Your task to perform on an android device: check google app version Image 0: 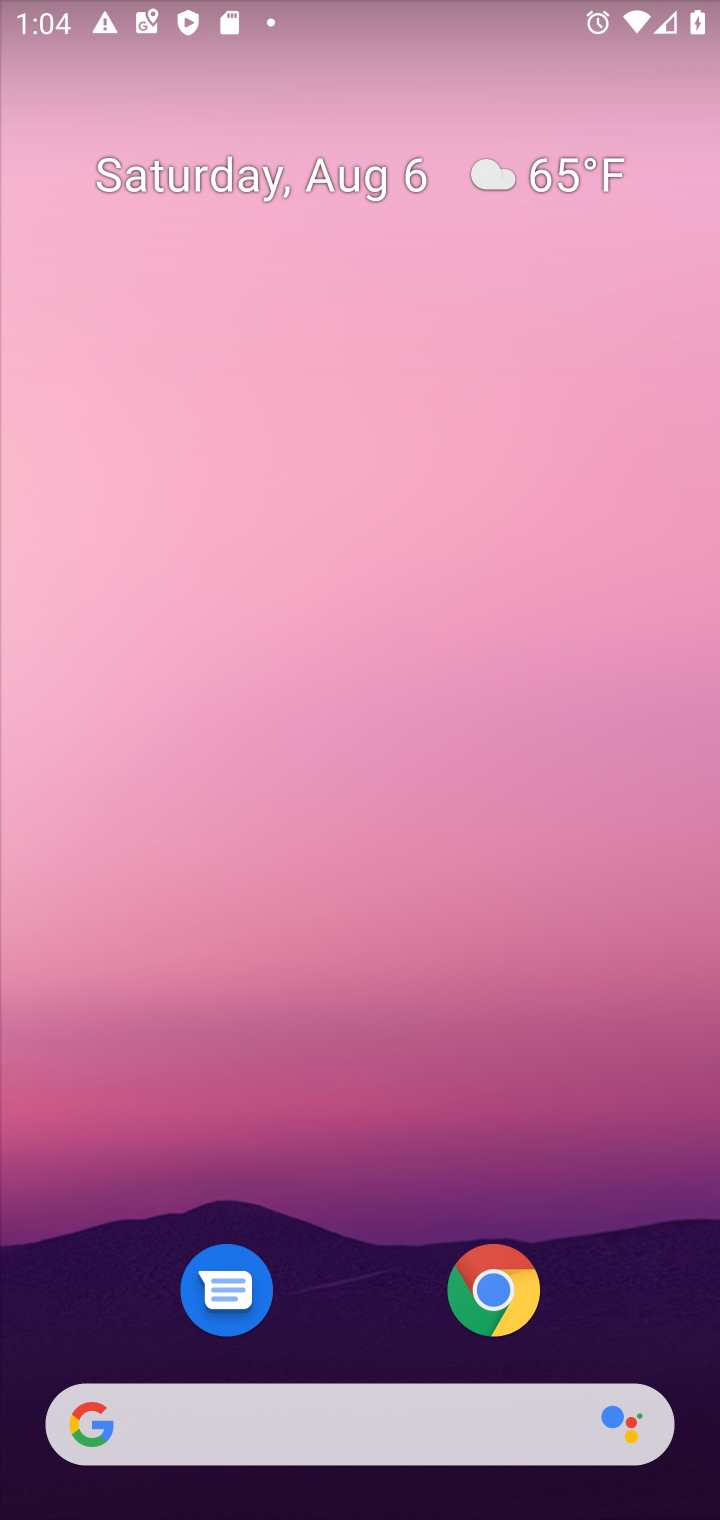
Step 0: drag from (362, 1335) to (342, 205)
Your task to perform on an android device: check google app version Image 1: 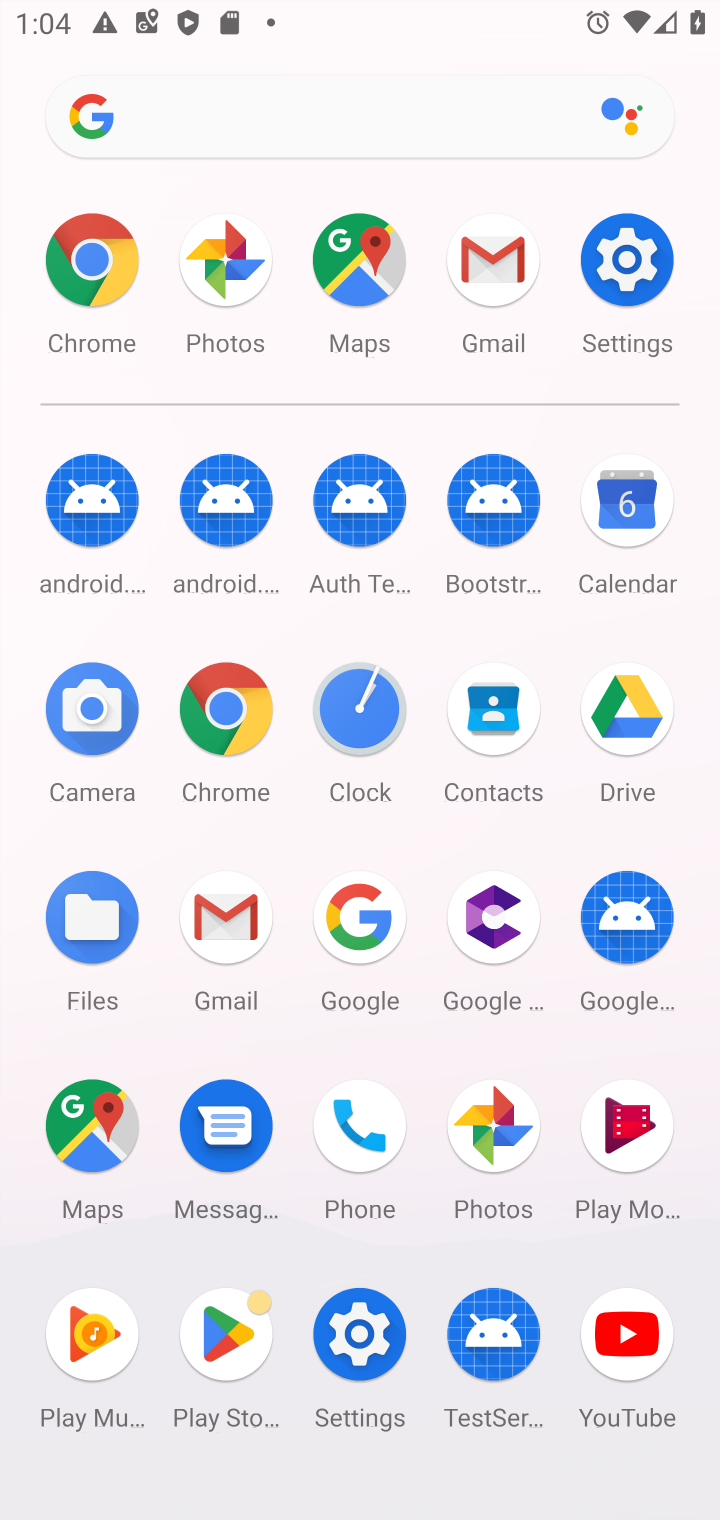
Step 1: click (353, 896)
Your task to perform on an android device: check google app version Image 2: 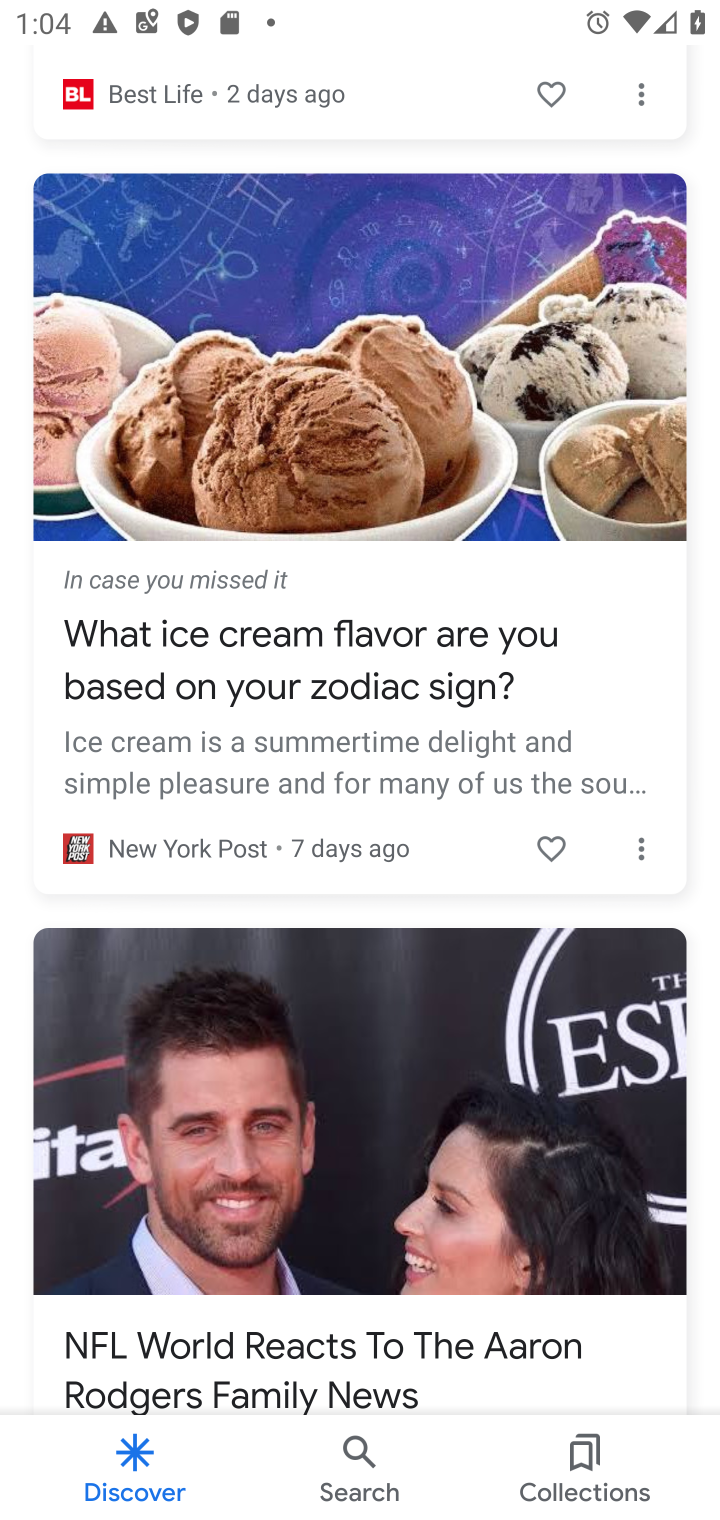
Step 2: click (633, 92)
Your task to perform on an android device: check google app version Image 3: 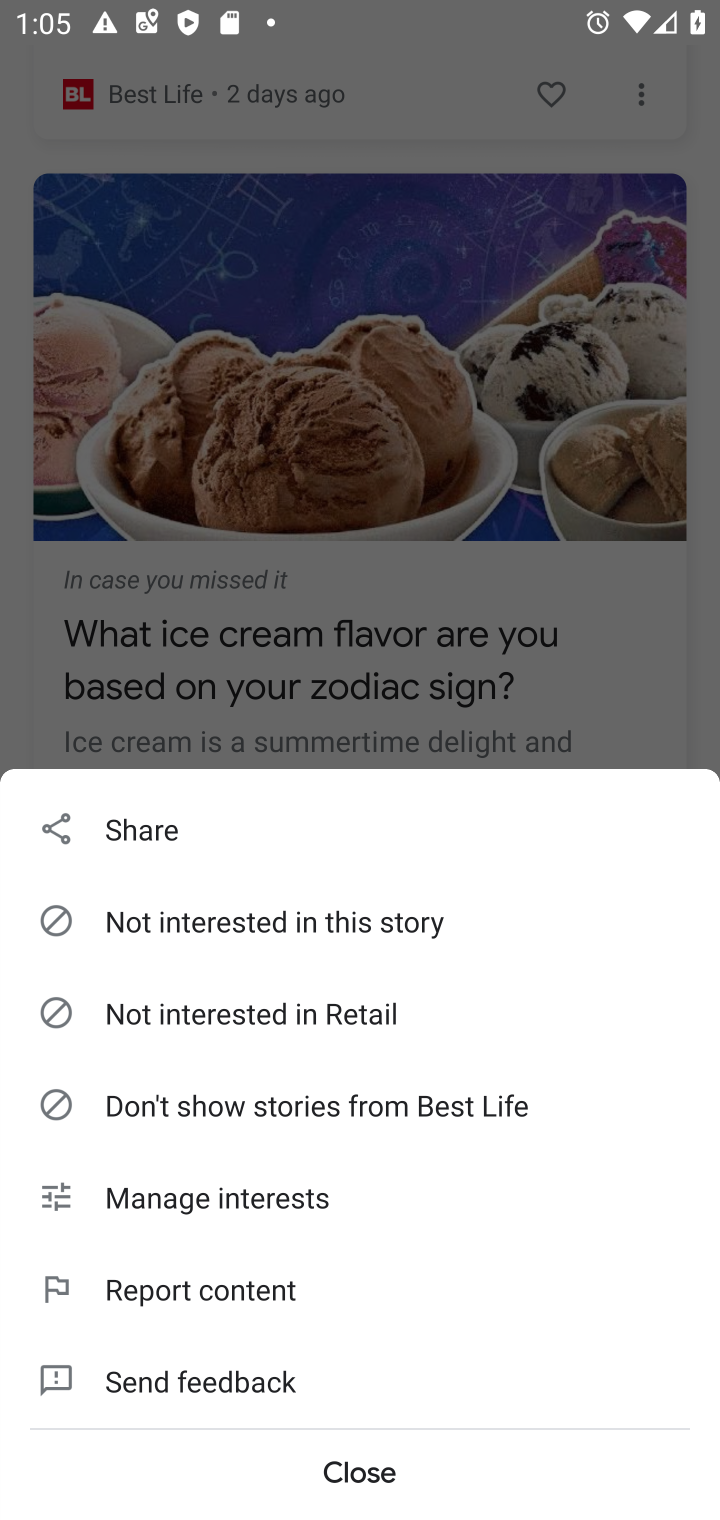
Step 3: click (439, 516)
Your task to perform on an android device: check google app version Image 4: 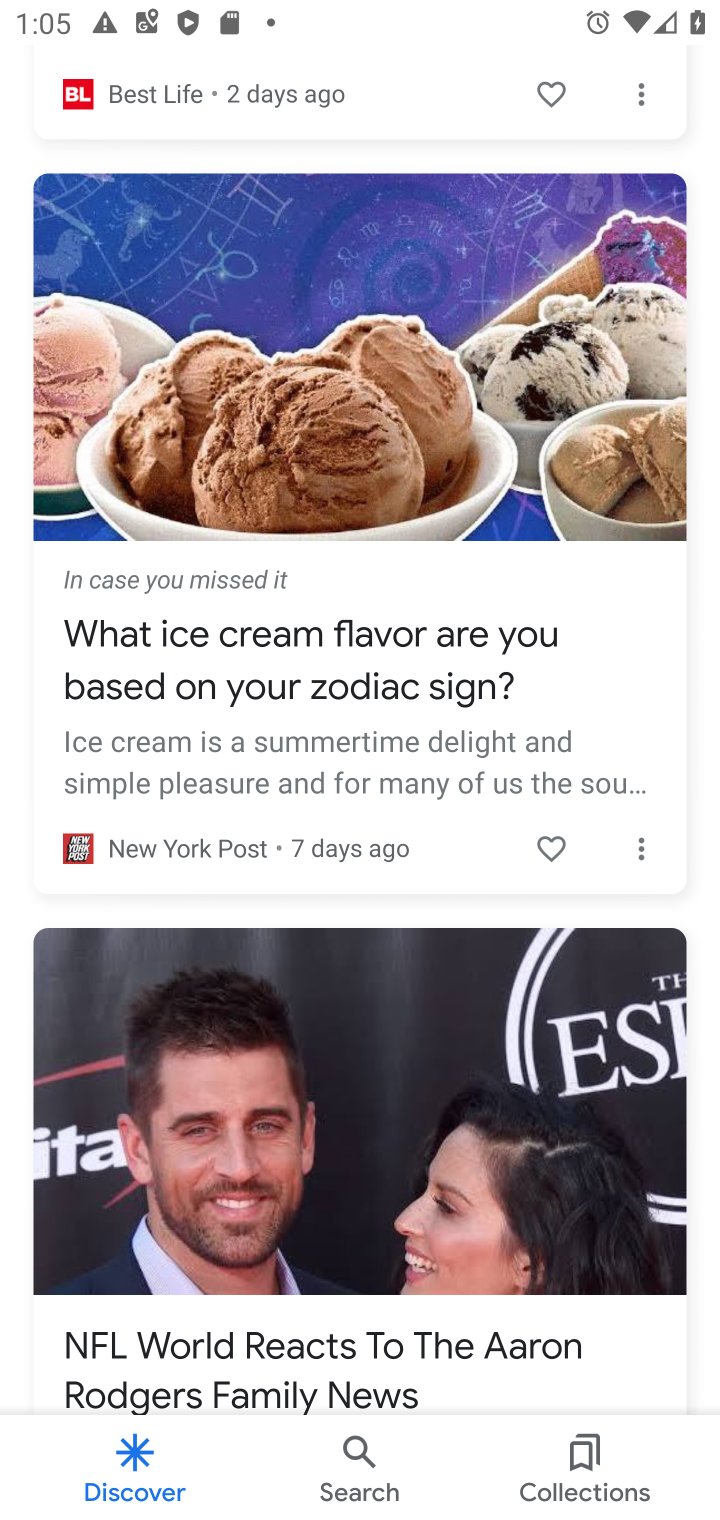
Step 4: drag from (396, 330) to (457, 1515)
Your task to perform on an android device: check google app version Image 5: 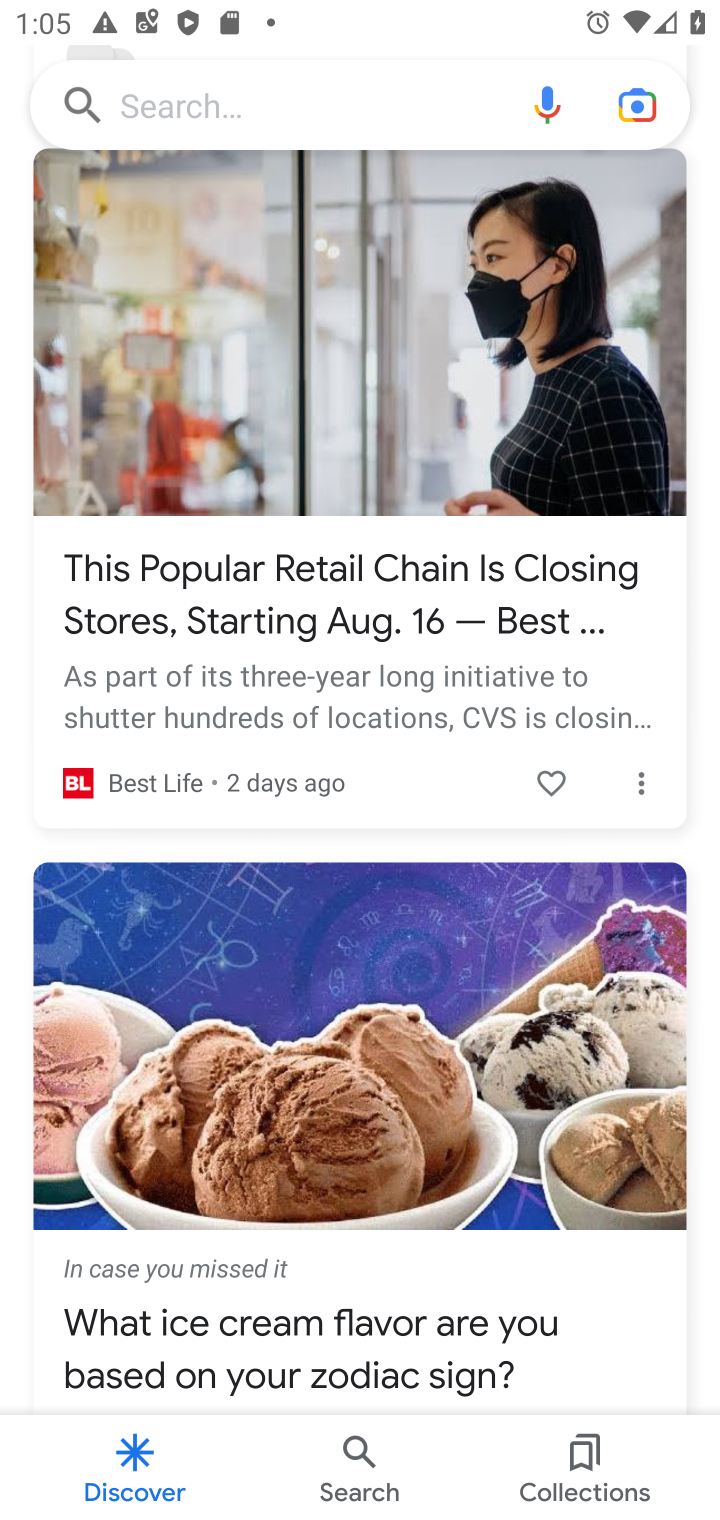
Step 5: drag from (414, 696) to (511, 1517)
Your task to perform on an android device: check google app version Image 6: 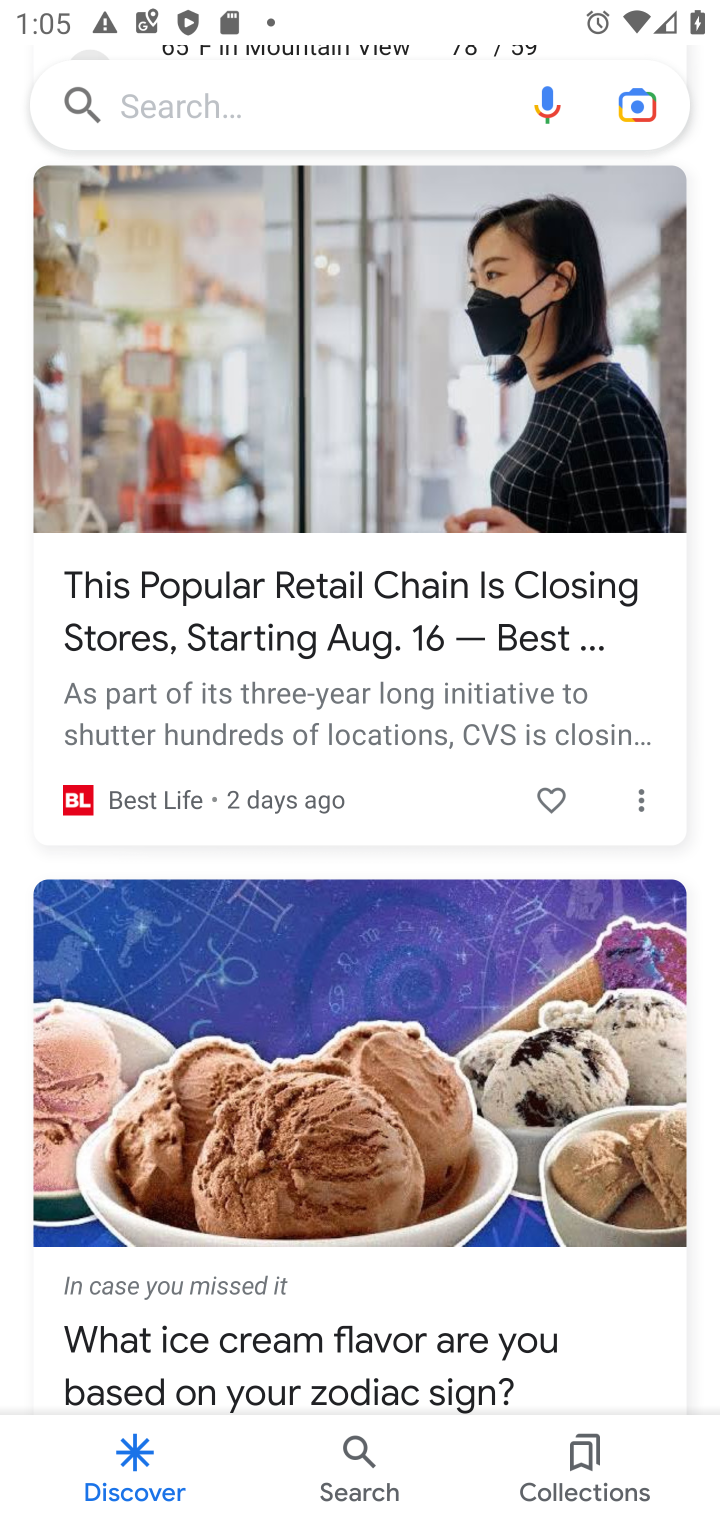
Step 6: drag from (418, 578) to (451, 1367)
Your task to perform on an android device: check google app version Image 7: 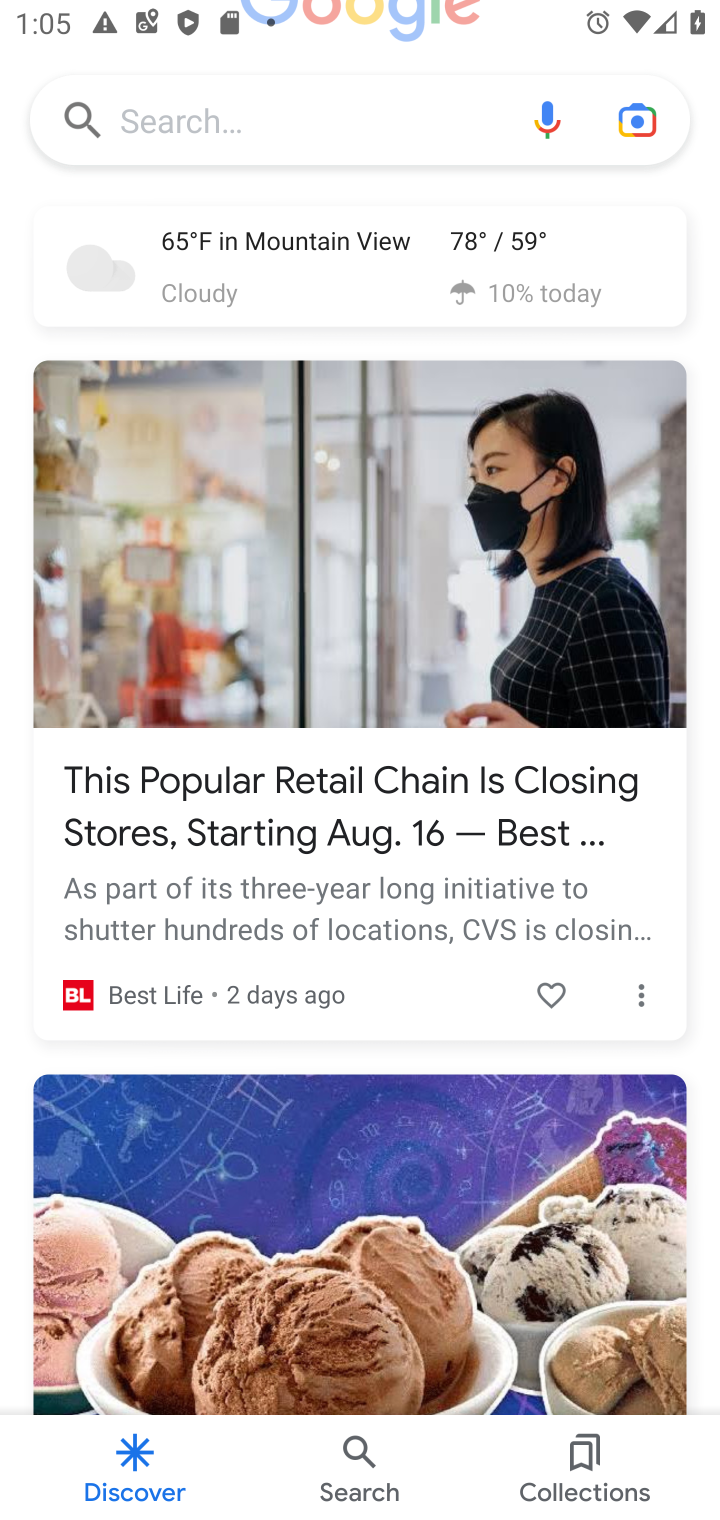
Step 7: drag from (363, 391) to (455, 1491)
Your task to perform on an android device: check google app version Image 8: 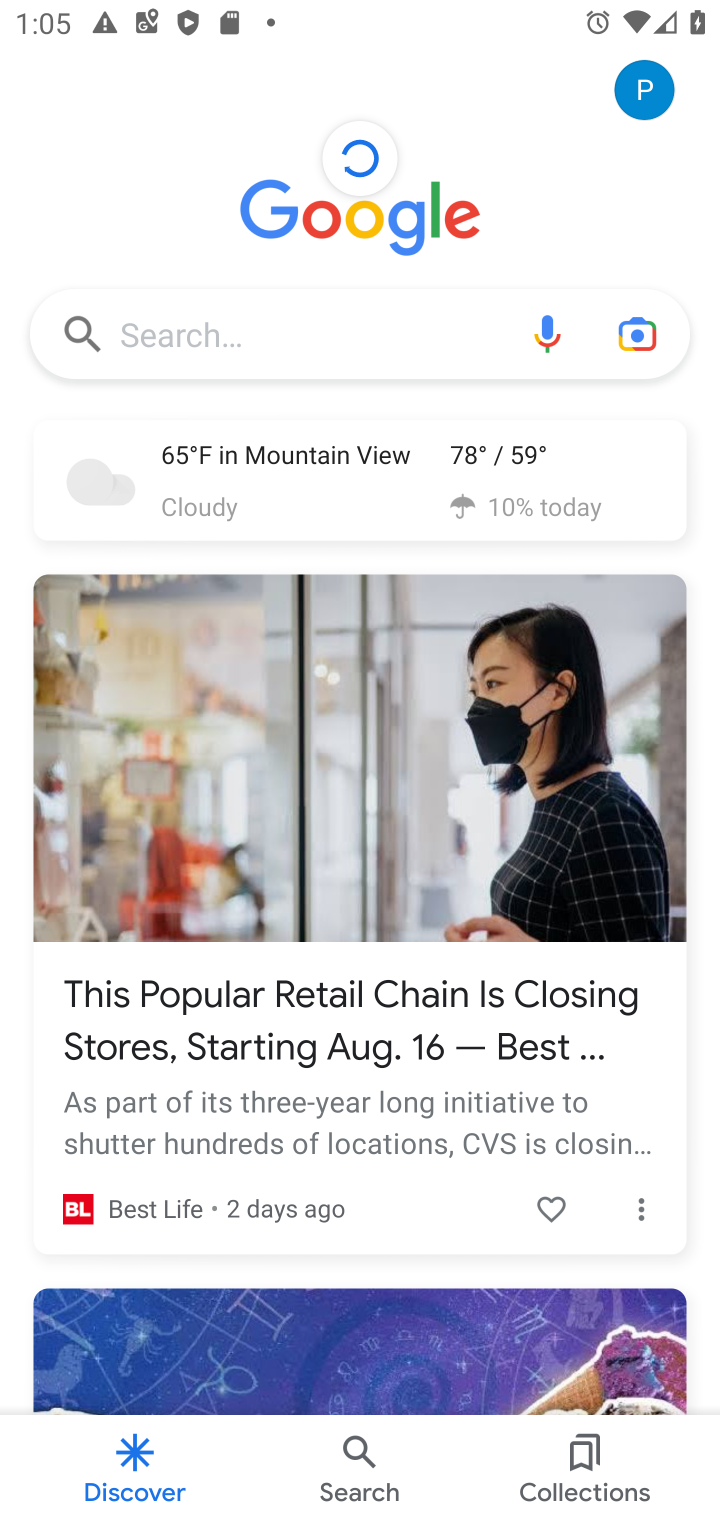
Step 8: click (647, 85)
Your task to perform on an android device: check google app version Image 9: 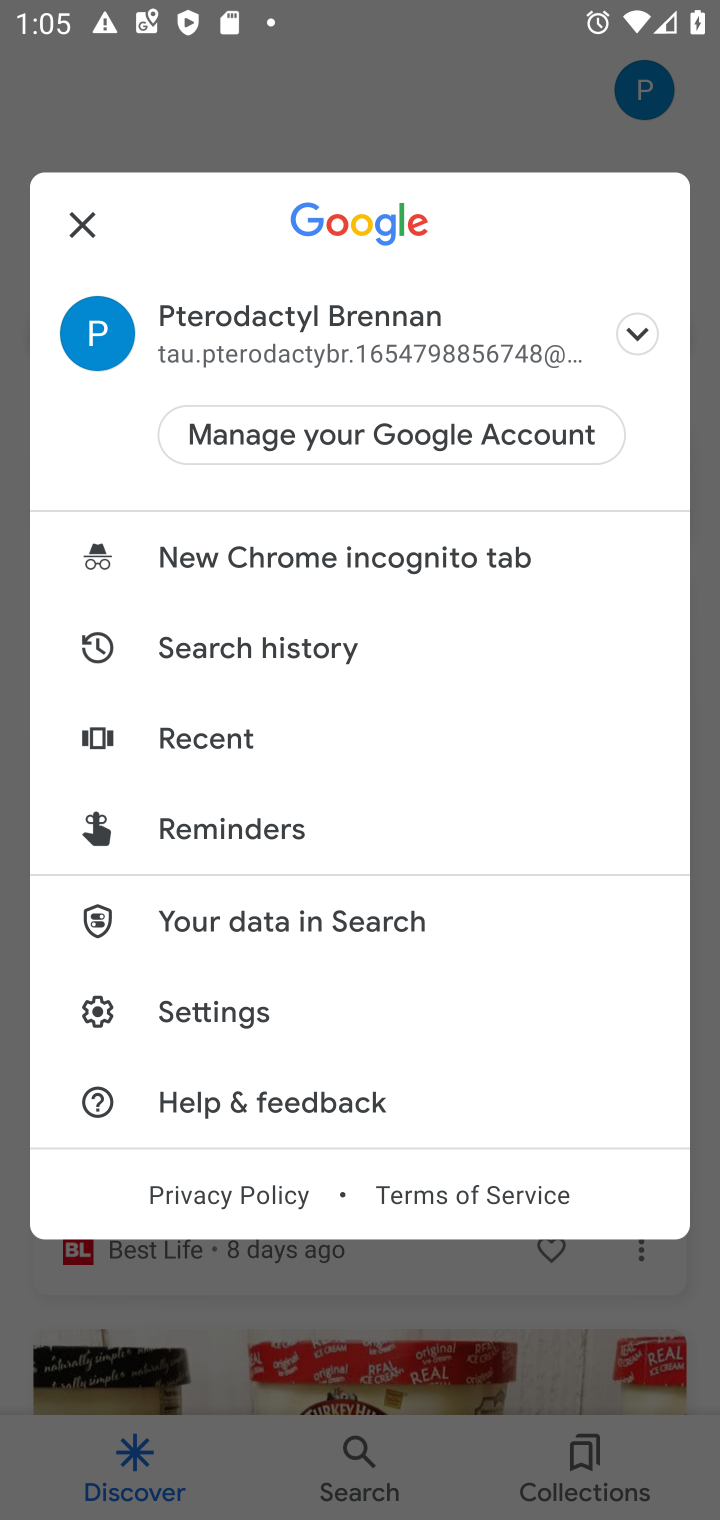
Step 9: click (257, 1002)
Your task to perform on an android device: check google app version Image 10: 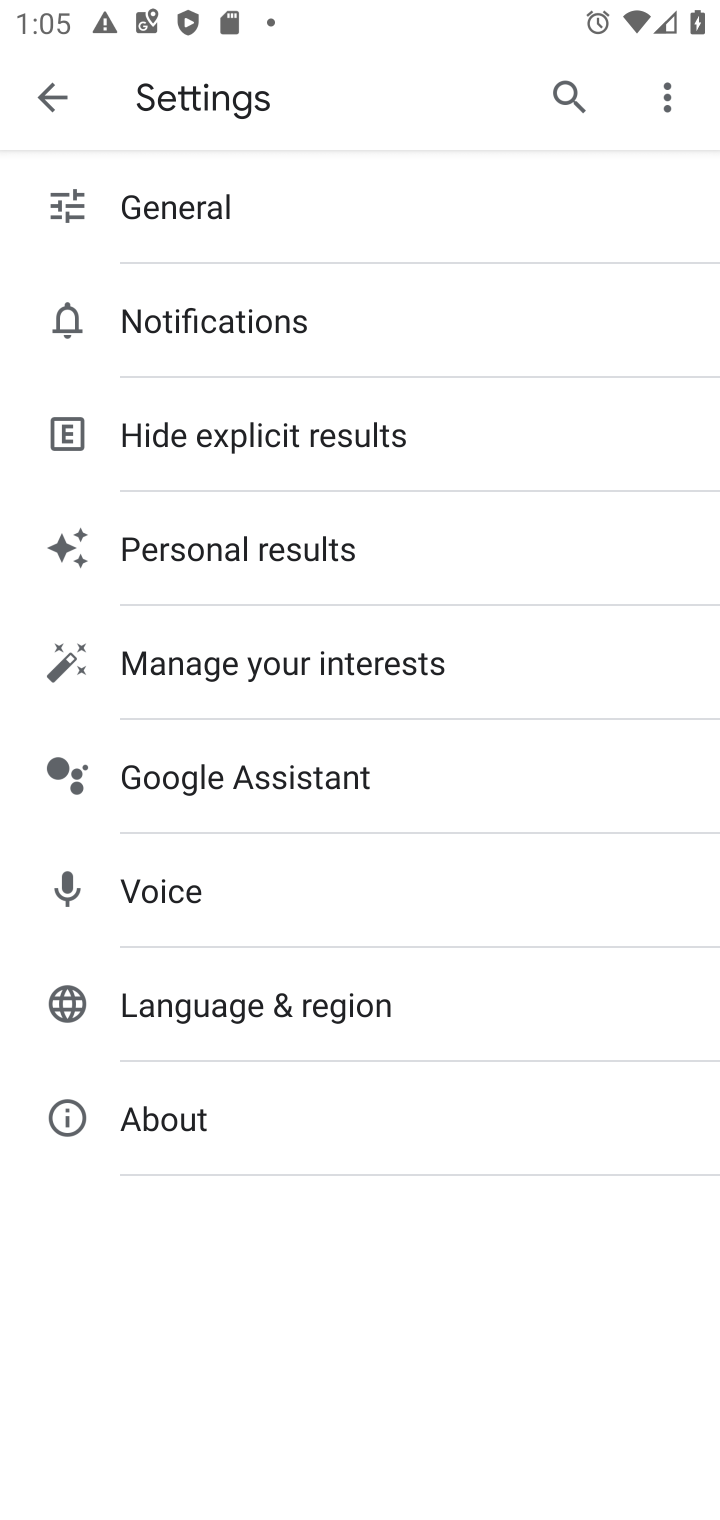
Step 10: click (221, 1128)
Your task to perform on an android device: check google app version Image 11: 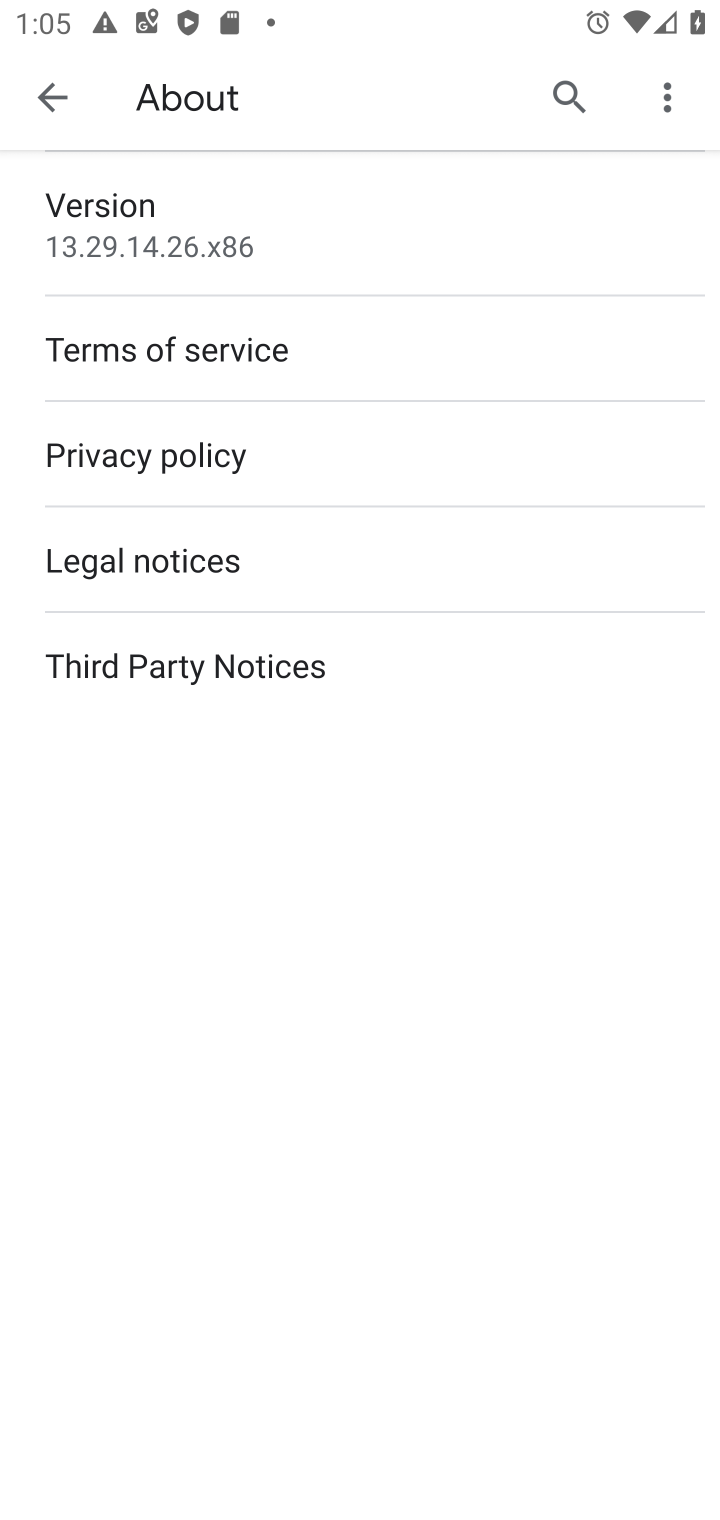
Step 11: task complete